Your task to perform on an android device: change text size in settings app Image 0: 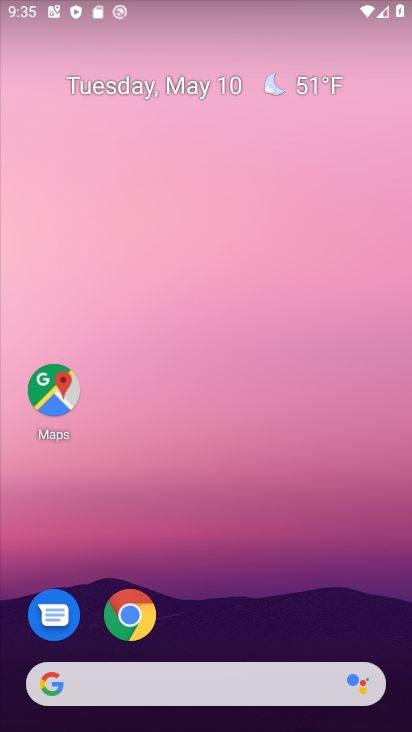
Step 0: drag from (249, 608) to (223, 160)
Your task to perform on an android device: change text size in settings app Image 1: 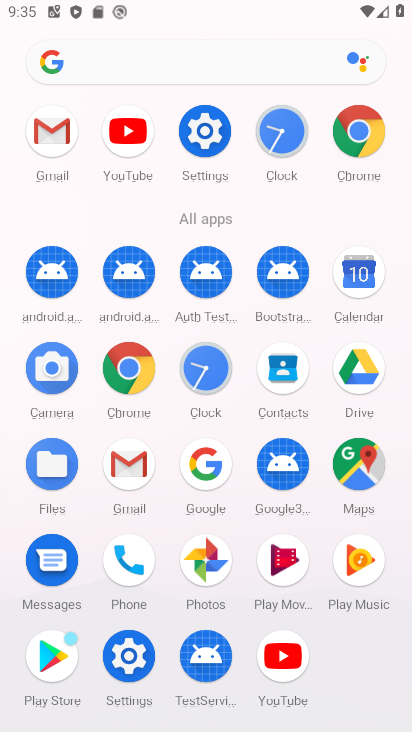
Step 1: click (214, 130)
Your task to perform on an android device: change text size in settings app Image 2: 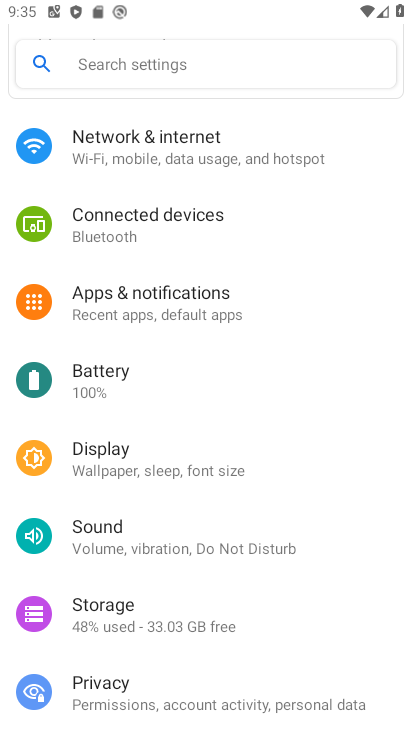
Step 2: click (195, 454)
Your task to perform on an android device: change text size in settings app Image 3: 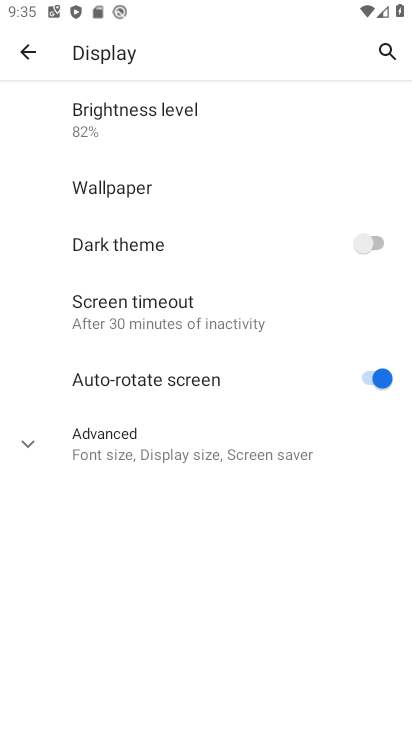
Step 3: click (207, 432)
Your task to perform on an android device: change text size in settings app Image 4: 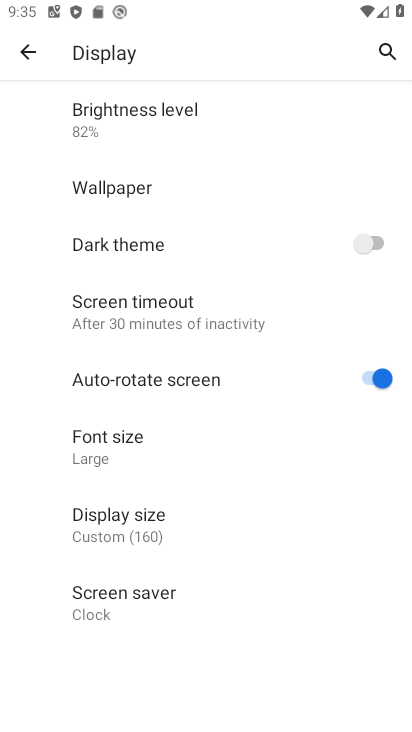
Step 4: click (195, 447)
Your task to perform on an android device: change text size in settings app Image 5: 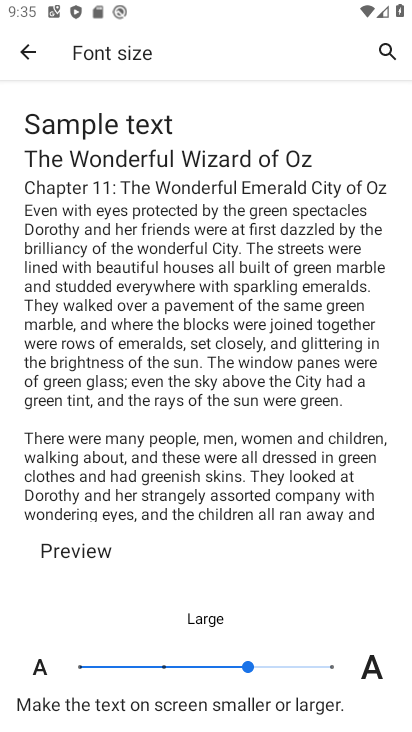
Step 5: click (79, 668)
Your task to perform on an android device: change text size in settings app Image 6: 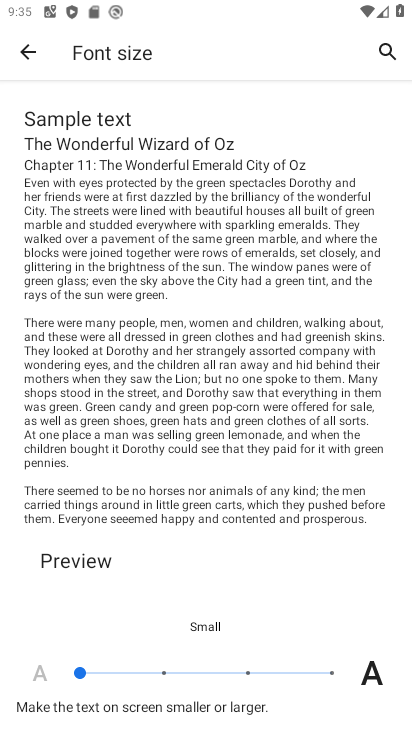
Step 6: task complete